Your task to perform on an android device: turn on sleep mode Image 0: 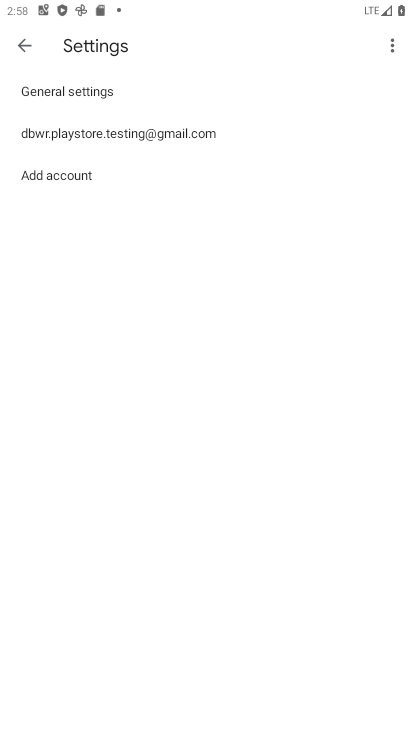
Step 0: press home button
Your task to perform on an android device: turn on sleep mode Image 1: 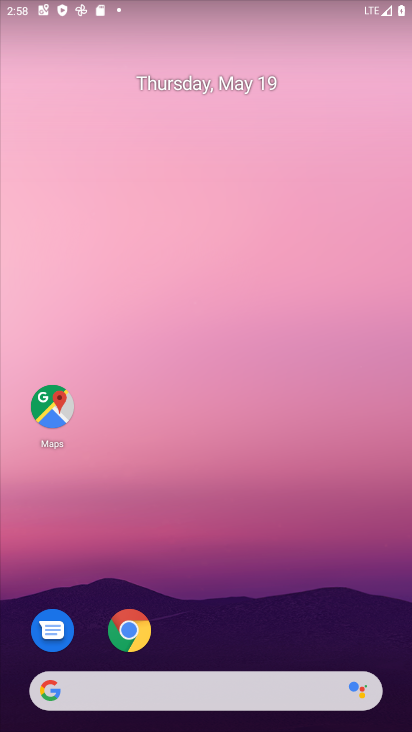
Step 1: drag from (388, 634) to (297, 89)
Your task to perform on an android device: turn on sleep mode Image 2: 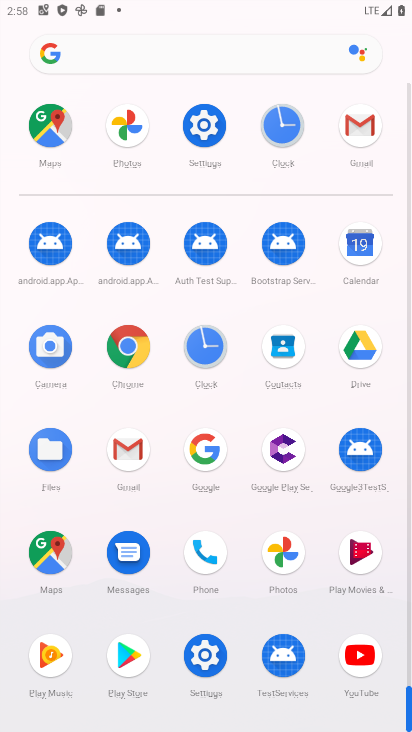
Step 2: click (206, 655)
Your task to perform on an android device: turn on sleep mode Image 3: 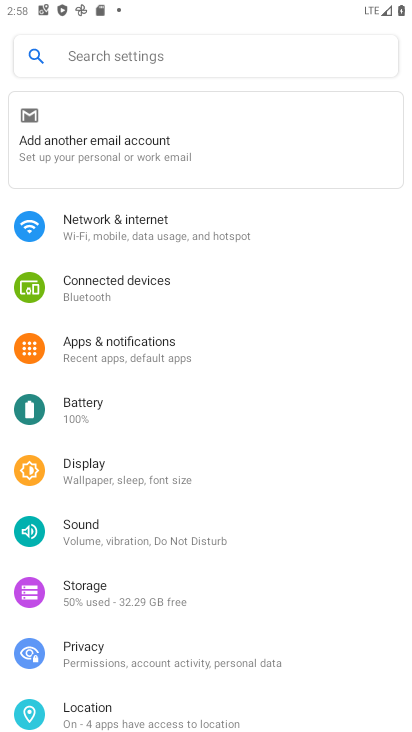
Step 3: click (114, 473)
Your task to perform on an android device: turn on sleep mode Image 4: 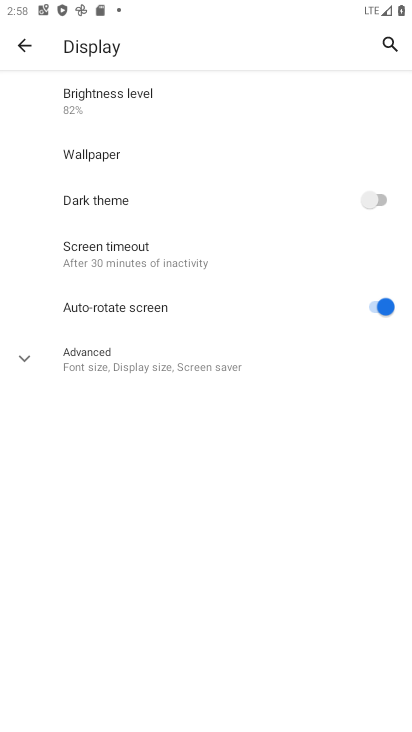
Step 4: click (21, 359)
Your task to perform on an android device: turn on sleep mode Image 5: 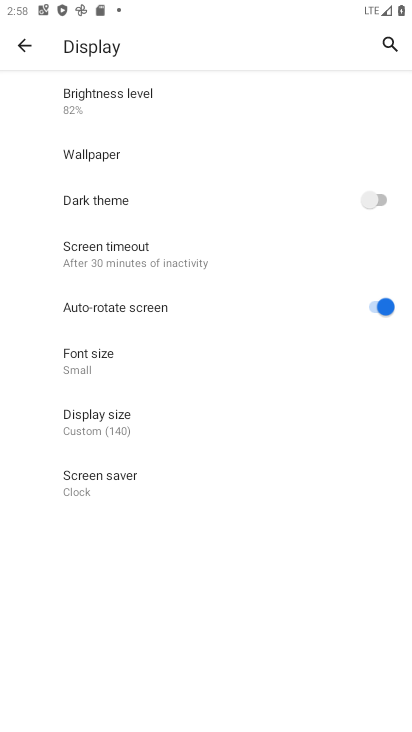
Step 5: task complete